Your task to perform on an android device: What is the recent news? Image 0: 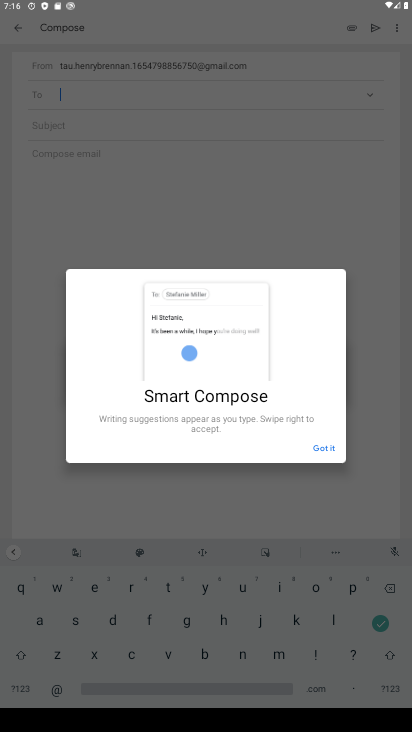
Step 0: press home button
Your task to perform on an android device: What is the recent news? Image 1: 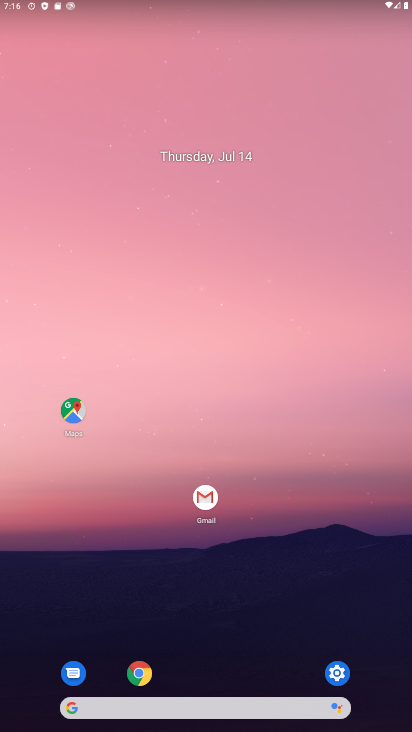
Step 1: click (213, 709)
Your task to perform on an android device: What is the recent news? Image 2: 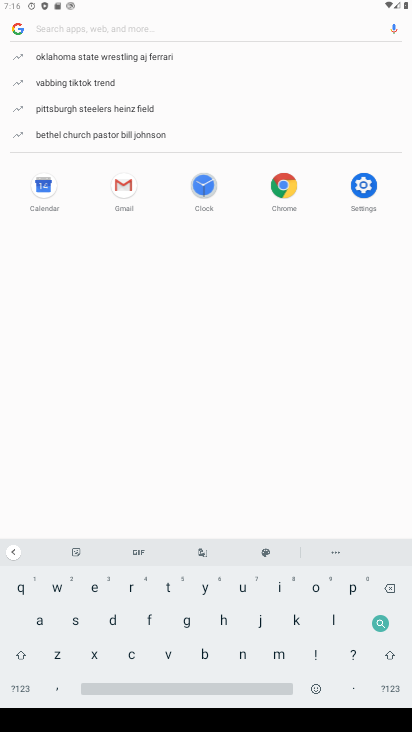
Step 2: click (130, 584)
Your task to perform on an android device: What is the recent news? Image 3: 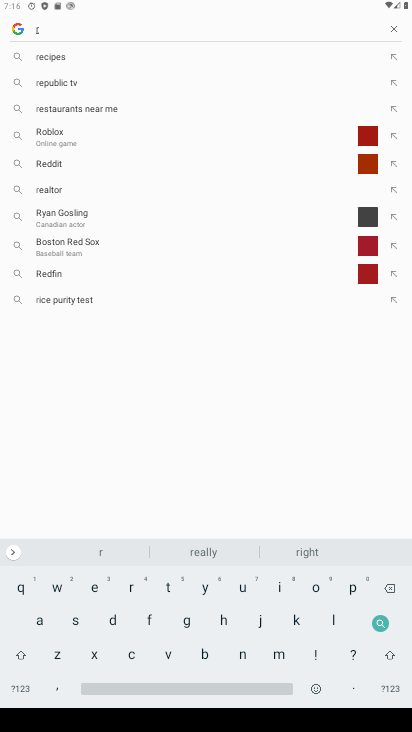
Step 3: click (94, 588)
Your task to perform on an android device: What is the recent news? Image 4: 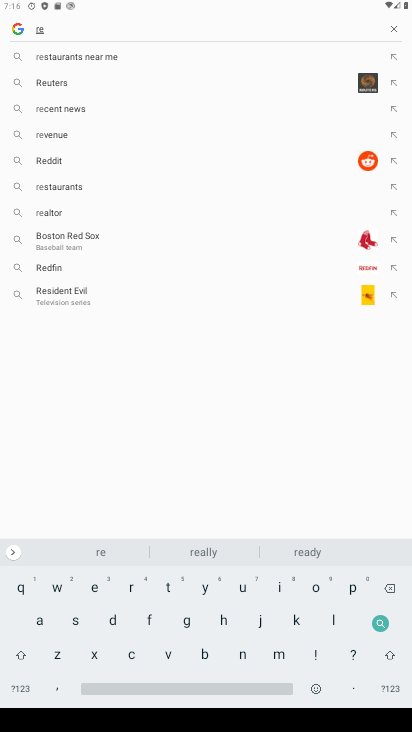
Step 4: click (71, 112)
Your task to perform on an android device: What is the recent news? Image 5: 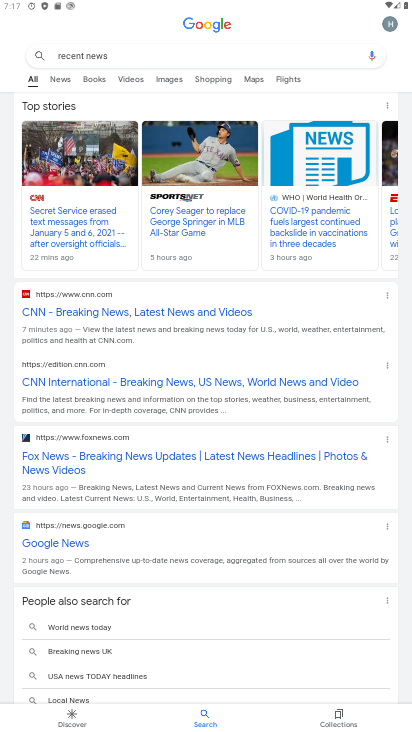
Step 5: task complete